Your task to perform on an android device: Show me popular games on the Play Store Image 0: 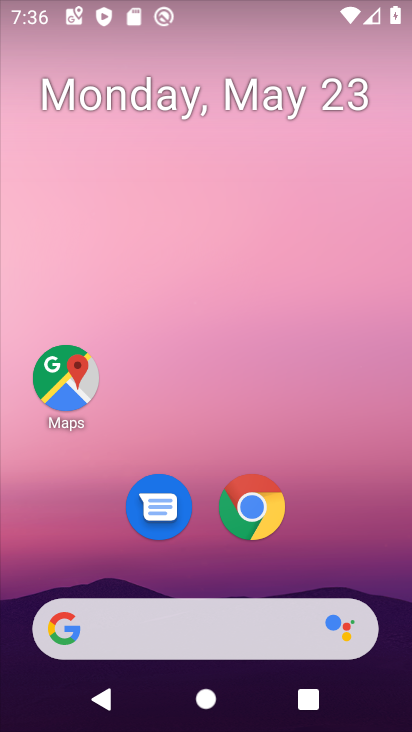
Step 0: drag from (326, 533) to (318, 142)
Your task to perform on an android device: Show me popular games on the Play Store Image 1: 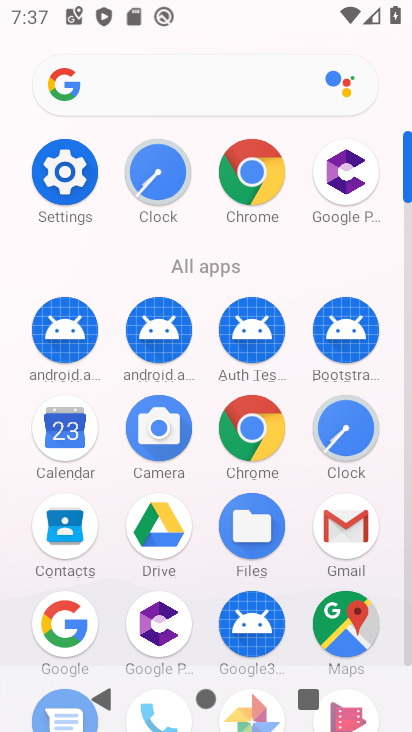
Step 1: drag from (202, 596) to (204, 242)
Your task to perform on an android device: Show me popular games on the Play Store Image 2: 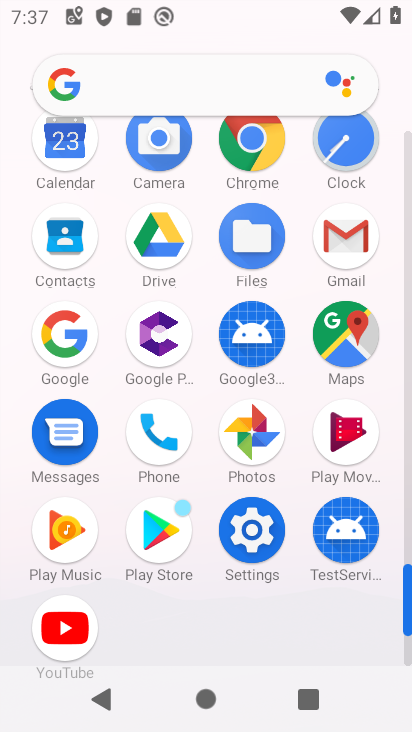
Step 2: click (151, 569)
Your task to perform on an android device: Show me popular games on the Play Store Image 3: 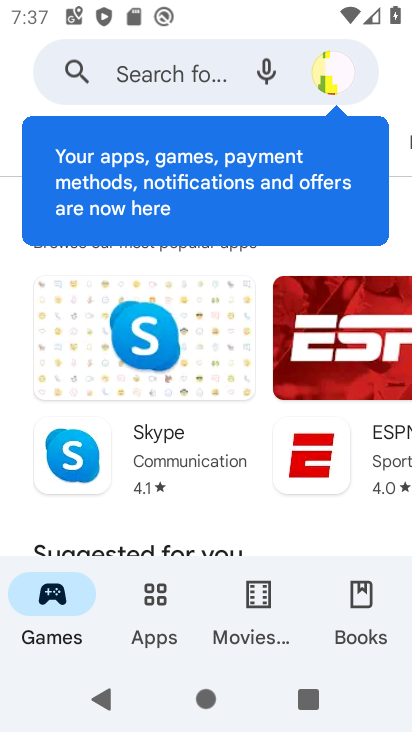
Step 3: click (160, 613)
Your task to perform on an android device: Show me popular games on the Play Store Image 4: 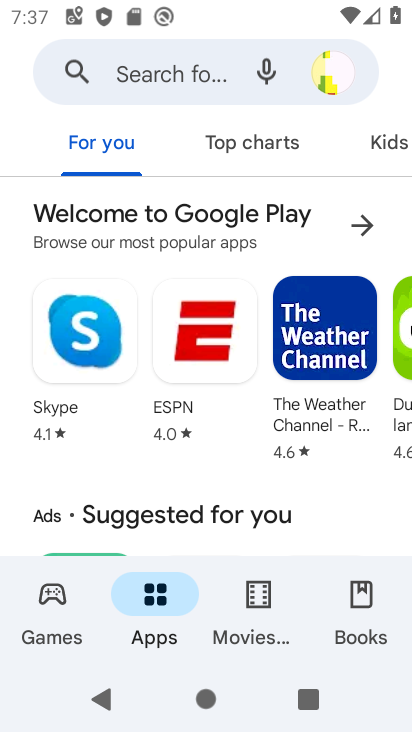
Step 4: click (62, 609)
Your task to perform on an android device: Show me popular games on the Play Store Image 5: 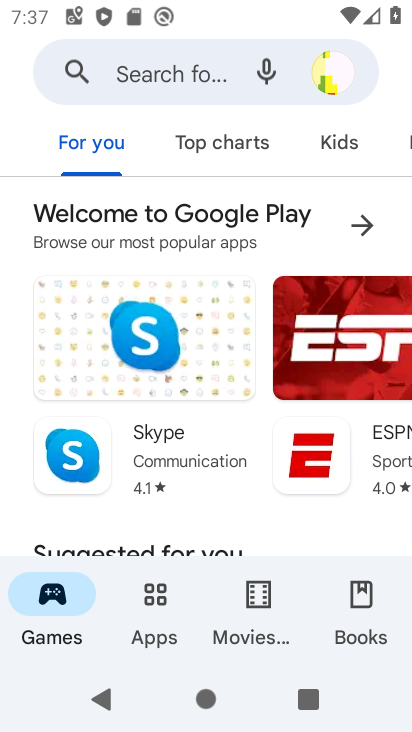
Step 5: click (234, 148)
Your task to perform on an android device: Show me popular games on the Play Store Image 6: 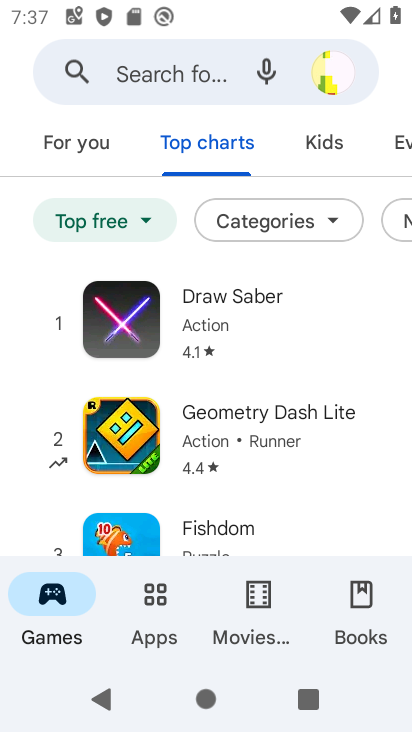
Step 6: task complete